Your task to perform on an android device: turn off improve location accuracy Image 0: 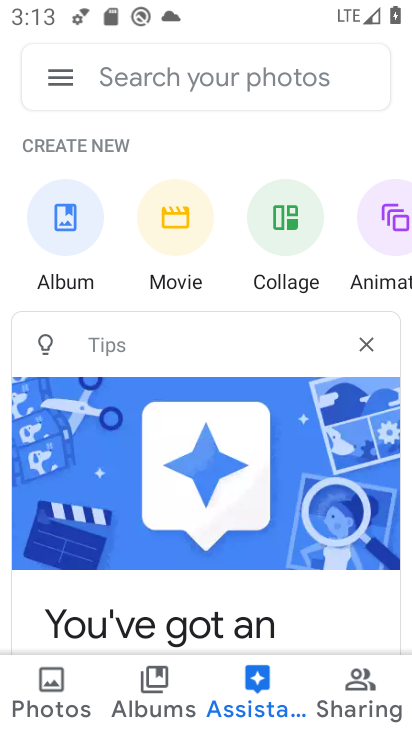
Step 0: press home button
Your task to perform on an android device: turn off improve location accuracy Image 1: 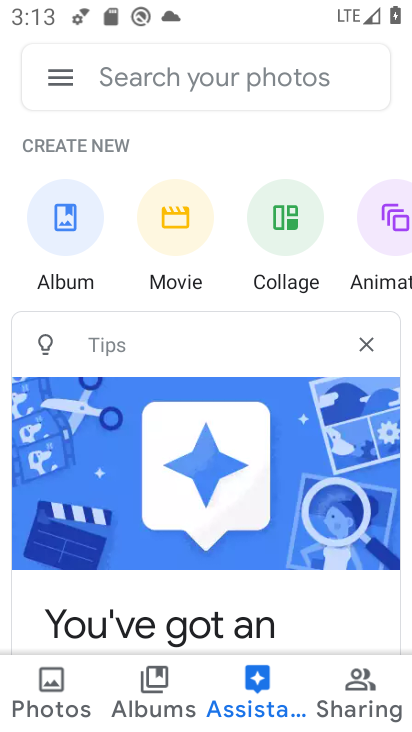
Step 1: press home button
Your task to perform on an android device: turn off improve location accuracy Image 2: 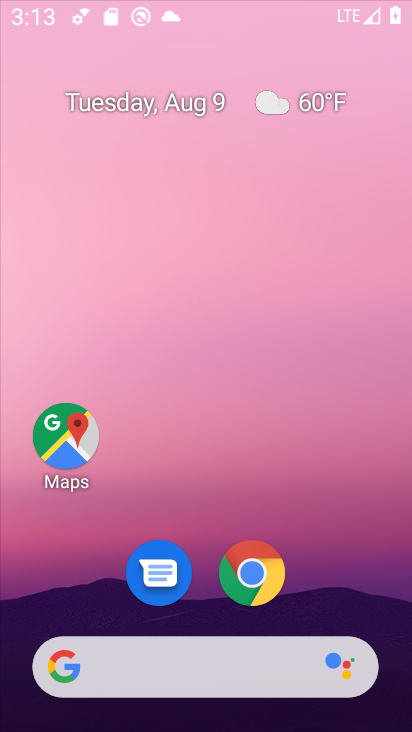
Step 2: press home button
Your task to perform on an android device: turn off improve location accuracy Image 3: 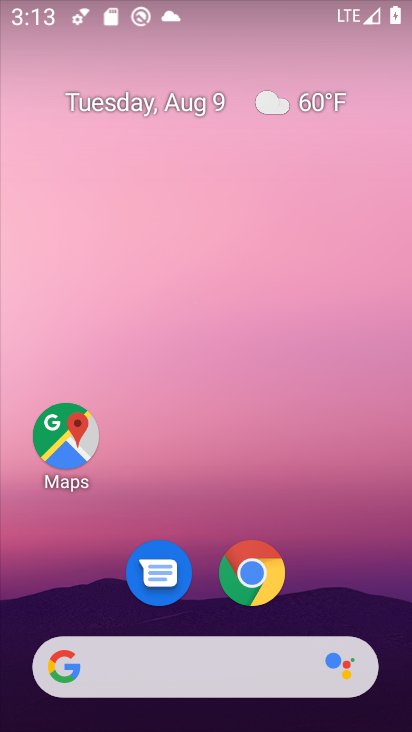
Step 3: drag from (340, 553) to (44, 0)
Your task to perform on an android device: turn off improve location accuracy Image 4: 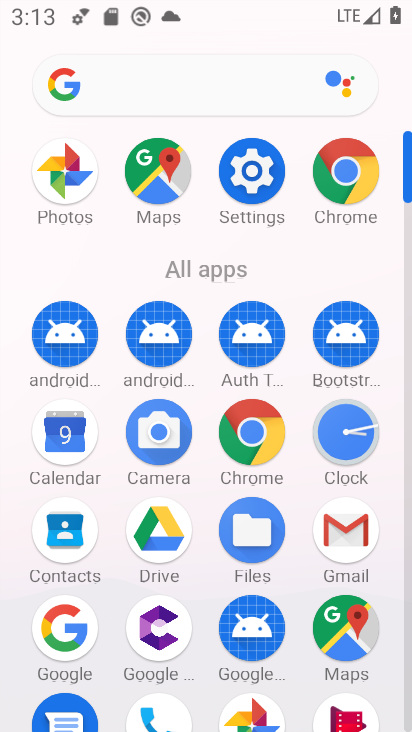
Step 4: click (239, 164)
Your task to perform on an android device: turn off improve location accuracy Image 5: 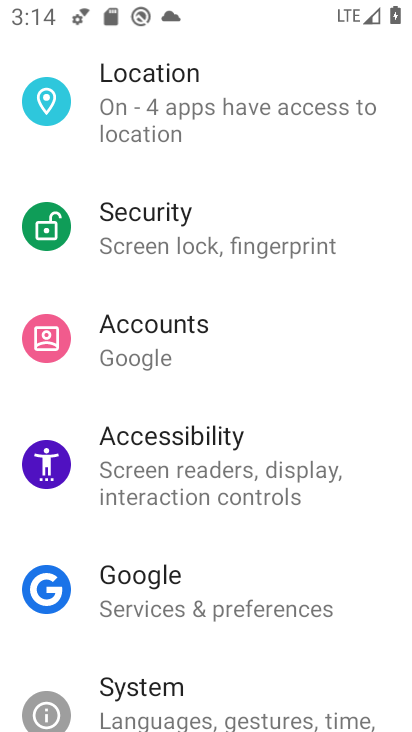
Step 5: drag from (286, 667) to (111, 165)
Your task to perform on an android device: turn off improve location accuracy Image 6: 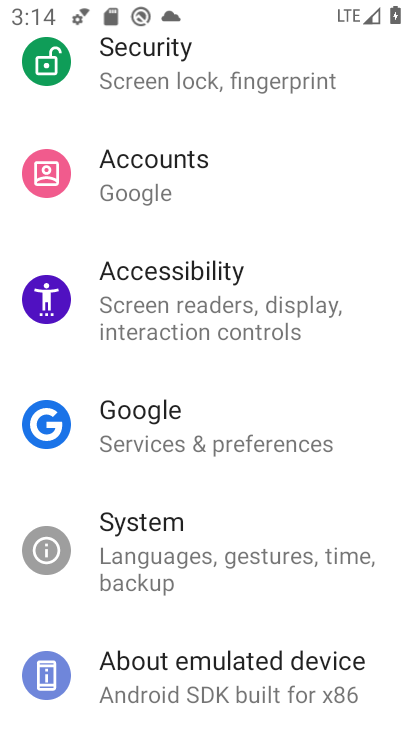
Step 6: drag from (291, 183) to (385, 445)
Your task to perform on an android device: turn off improve location accuracy Image 7: 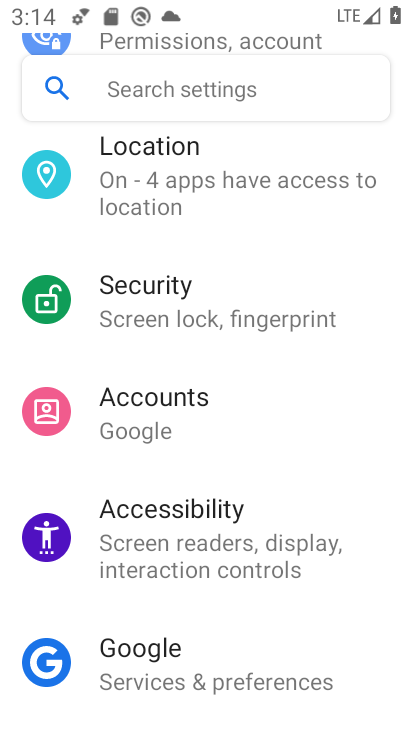
Step 7: click (225, 164)
Your task to perform on an android device: turn off improve location accuracy Image 8: 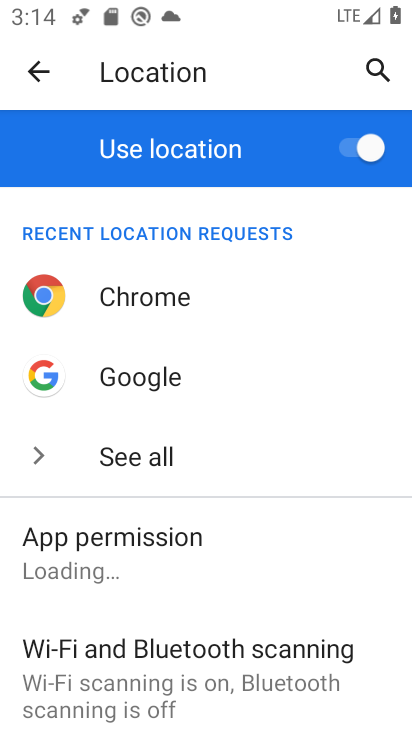
Step 8: drag from (307, 571) to (195, 295)
Your task to perform on an android device: turn off improve location accuracy Image 9: 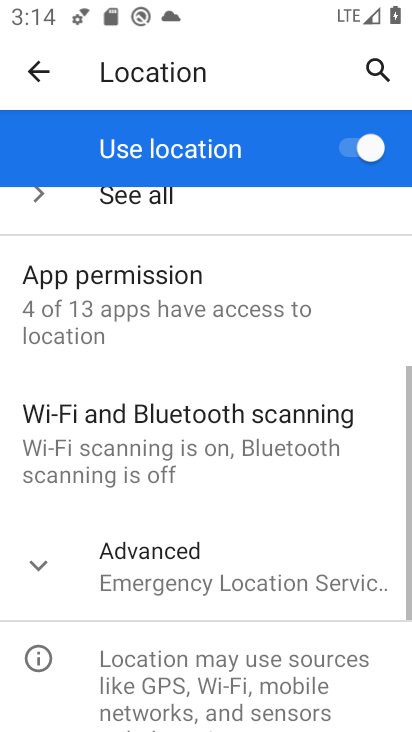
Step 9: click (252, 535)
Your task to perform on an android device: turn off improve location accuracy Image 10: 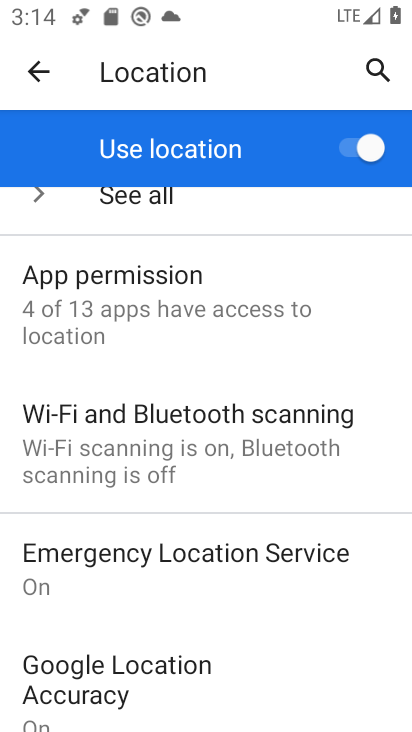
Step 10: drag from (387, 634) to (187, 224)
Your task to perform on an android device: turn off improve location accuracy Image 11: 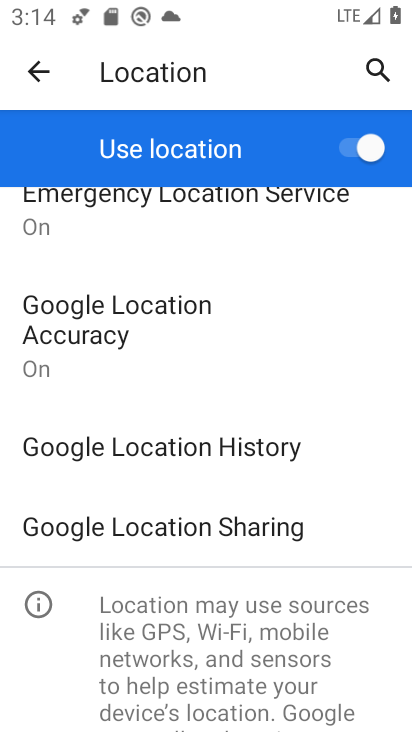
Step 11: click (141, 327)
Your task to perform on an android device: turn off improve location accuracy Image 12: 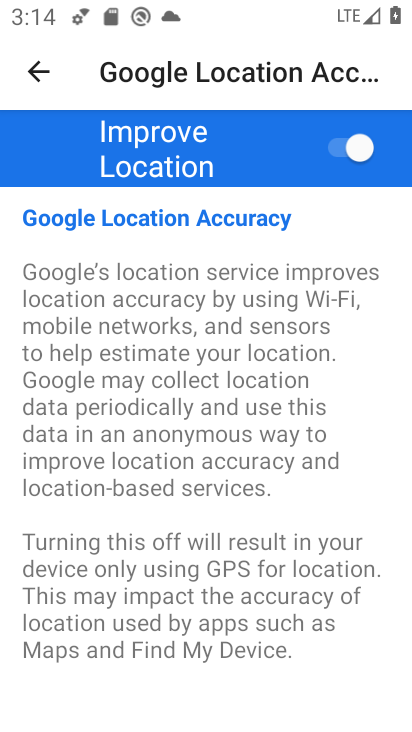
Step 12: click (335, 158)
Your task to perform on an android device: turn off improve location accuracy Image 13: 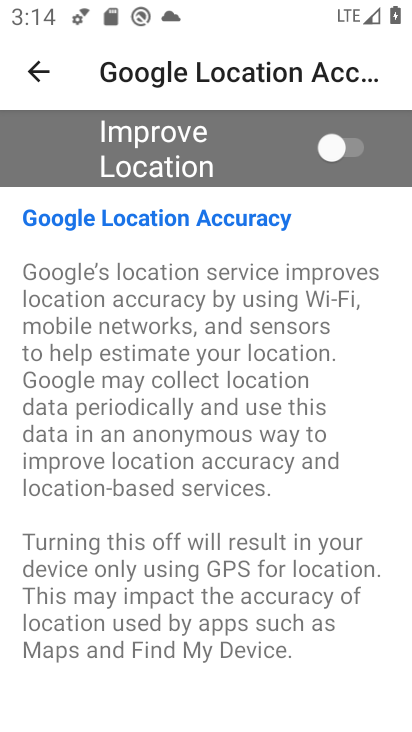
Step 13: task complete